Your task to perform on an android device: add a contact Image 0: 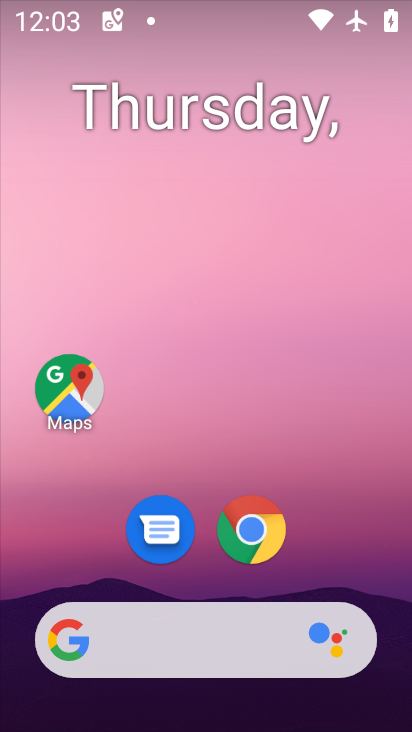
Step 0: drag from (400, 630) to (304, 31)
Your task to perform on an android device: add a contact Image 1: 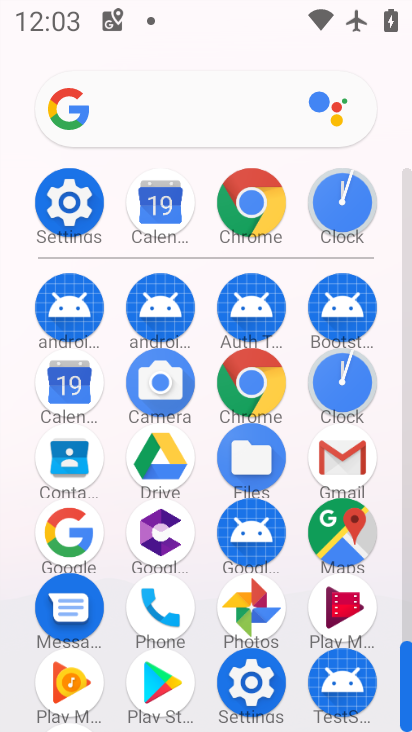
Step 1: click (406, 602)
Your task to perform on an android device: add a contact Image 2: 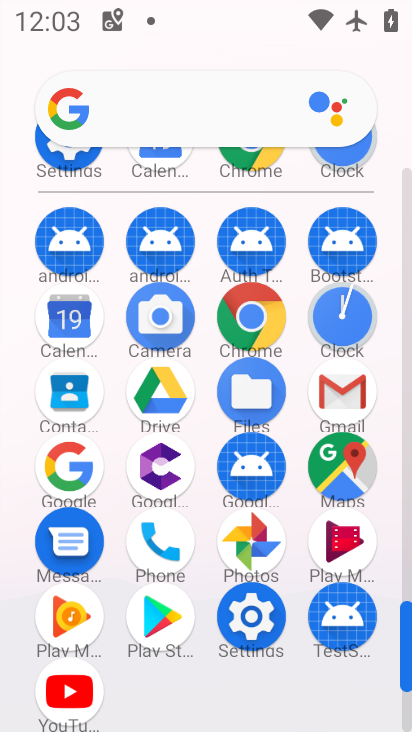
Step 2: click (67, 393)
Your task to perform on an android device: add a contact Image 3: 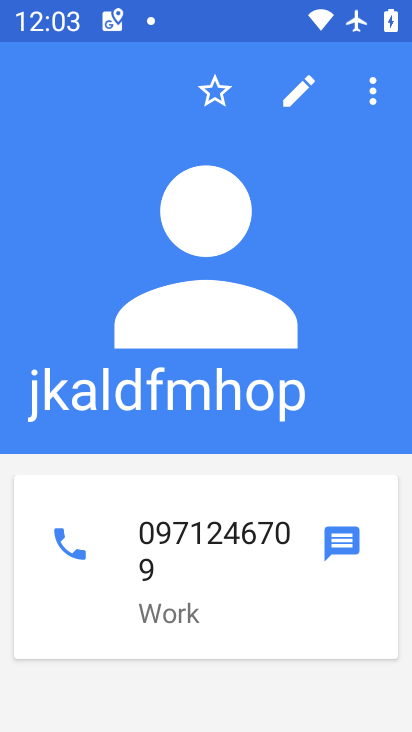
Step 3: press back button
Your task to perform on an android device: add a contact Image 4: 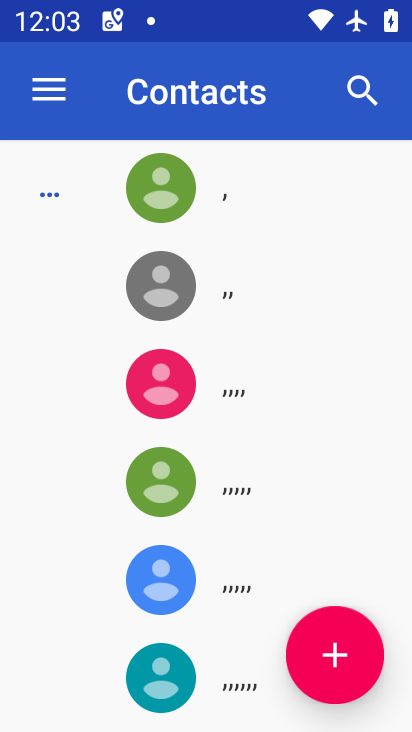
Step 4: click (333, 652)
Your task to perform on an android device: add a contact Image 5: 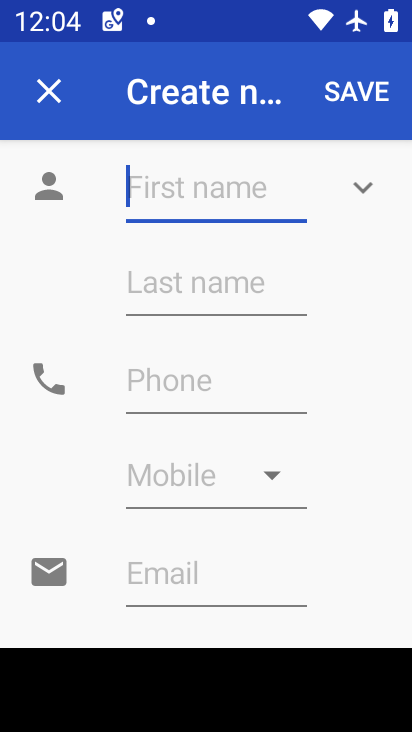
Step 5: type "terdvnmkjyt"
Your task to perform on an android device: add a contact Image 6: 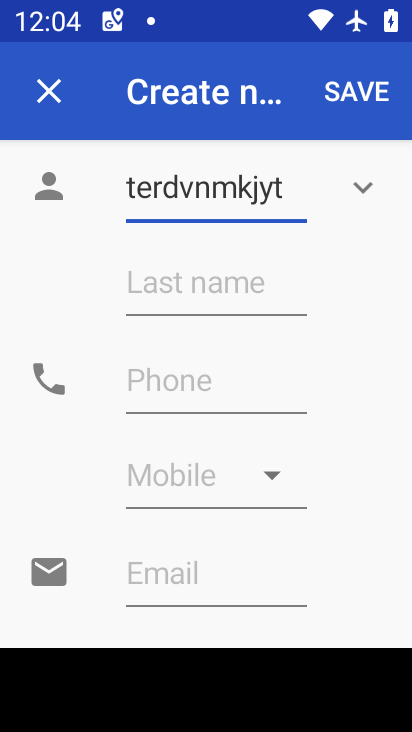
Step 6: click (235, 393)
Your task to perform on an android device: add a contact Image 7: 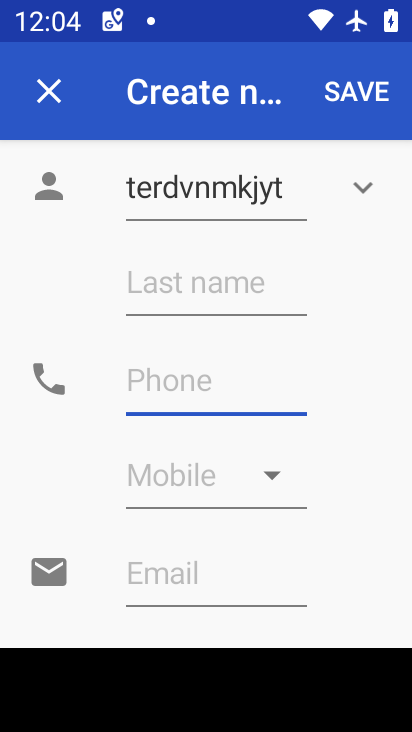
Step 7: type "980663367"
Your task to perform on an android device: add a contact Image 8: 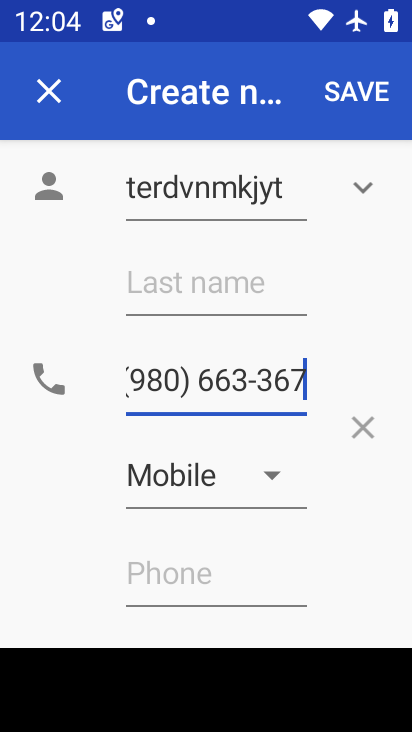
Step 8: click (274, 470)
Your task to perform on an android device: add a contact Image 9: 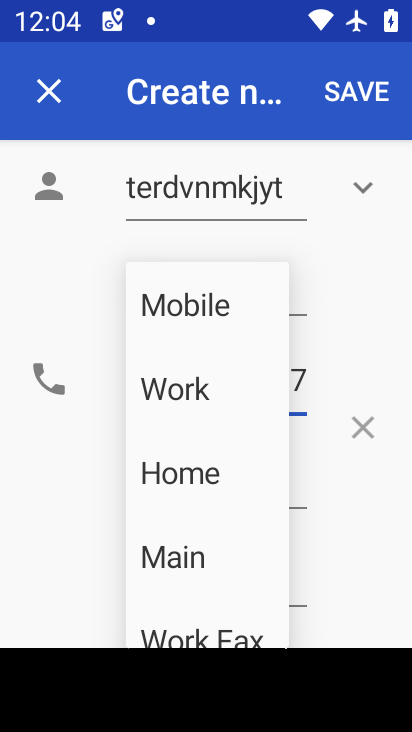
Step 9: click (184, 382)
Your task to perform on an android device: add a contact Image 10: 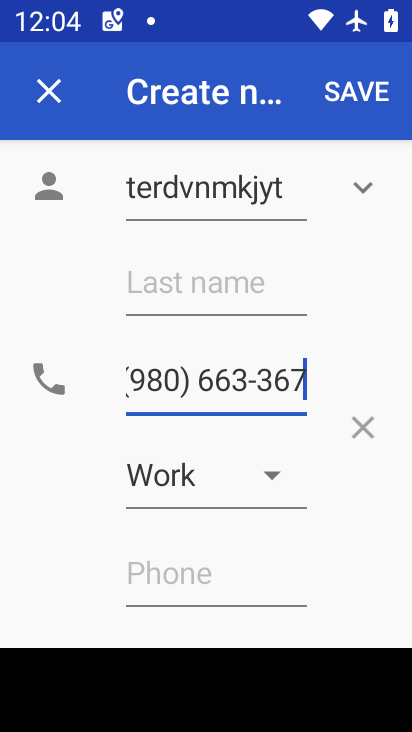
Step 10: click (349, 88)
Your task to perform on an android device: add a contact Image 11: 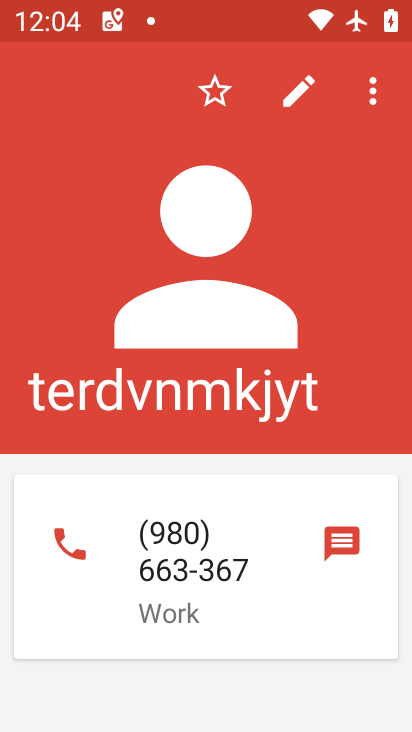
Step 11: task complete